Your task to perform on an android device: Open sound settings Image 0: 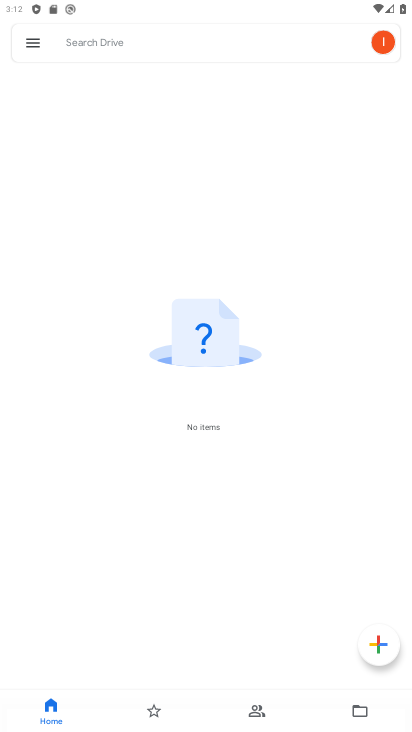
Step 0: press back button
Your task to perform on an android device: Open sound settings Image 1: 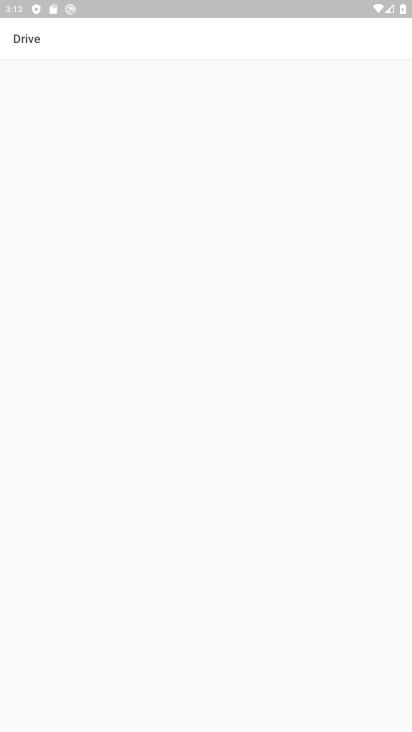
Step 1: press back button
Your task to perform on an android device: Open sound settings Image 2: 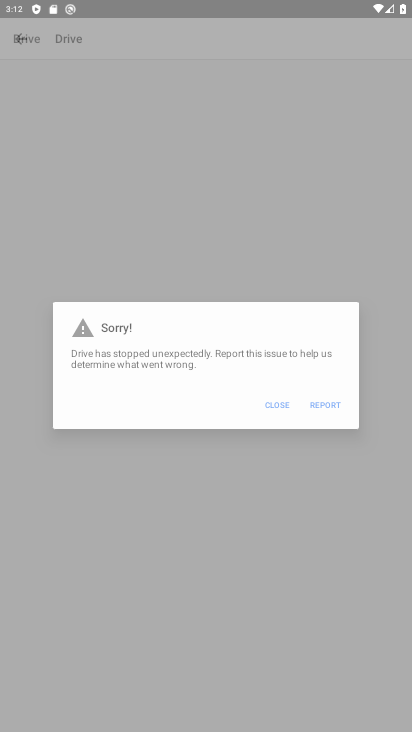
Step 2: press back button
Your task to perform on an android device: Open sound settings Image 3: 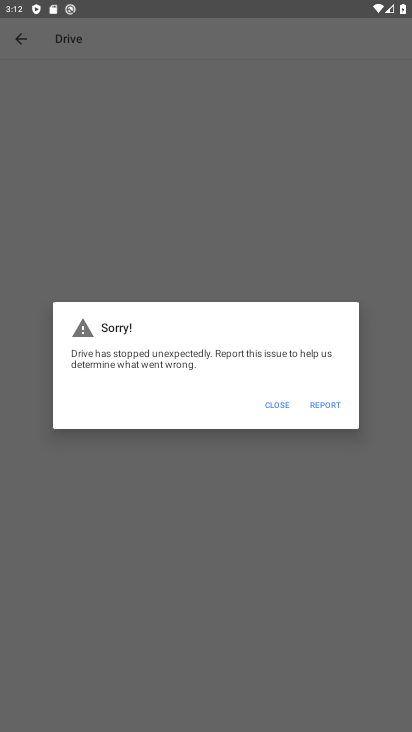
Step 3: press home button
Your task to perform on an android device: Open sound settings Image 4: 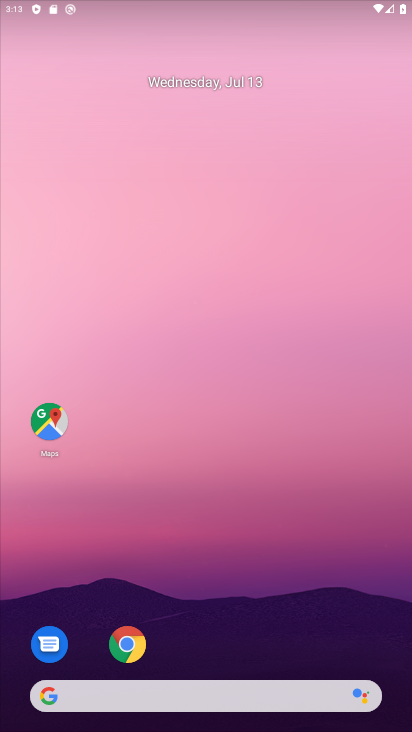
Step 4: press home button
Your task to perform on an android device: Open sound settings Image 5: 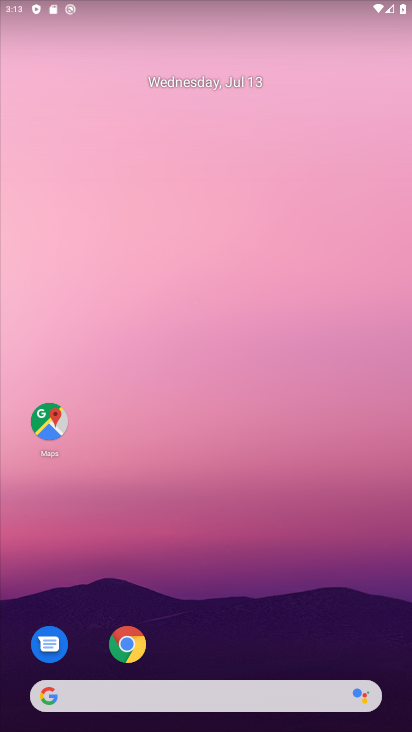
Step 5: drag from (256, 543) to (291, 45)
Your task to perform on an android device: Open sound settings Image 6: 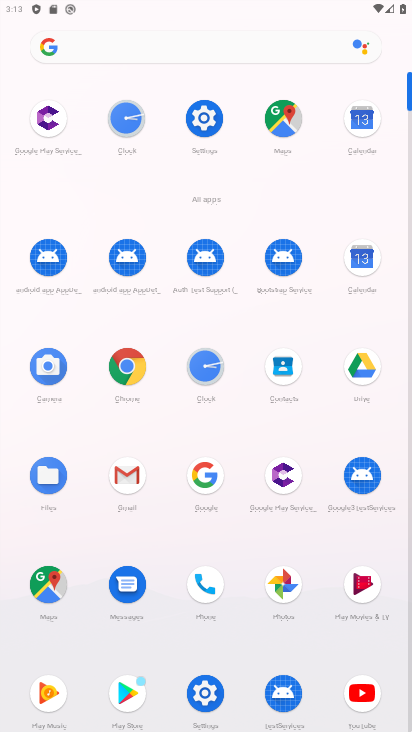
Step 6: click (198, 118)
Your task to perform on an android device: Open sound settings Image 7: 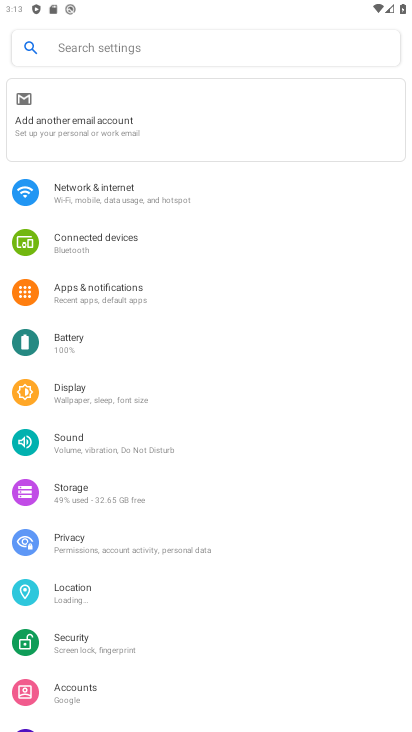
Step 7: click (88, 438)
Your task to perform on an android device: Open sound settings Image 8: 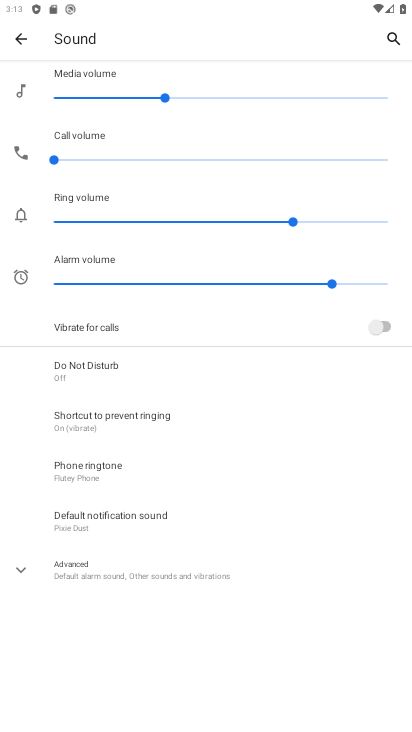
Step 8: task complete